Your task to perform on an android device: toggle sleep mode Image 0: 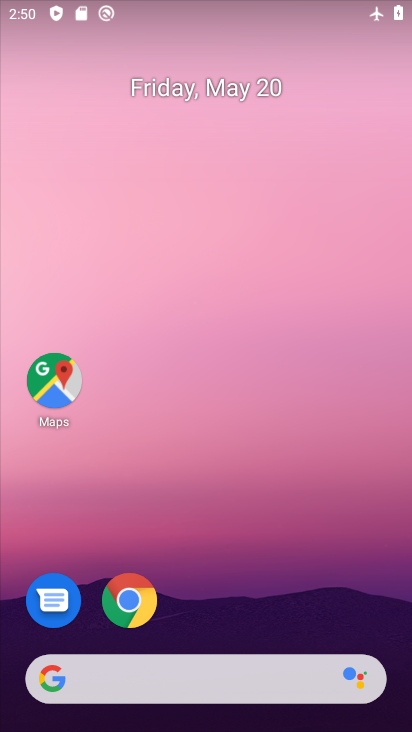
Step 0: click (291, 50)
Your task to perform on an android device: toggle sleep mode Image 1: 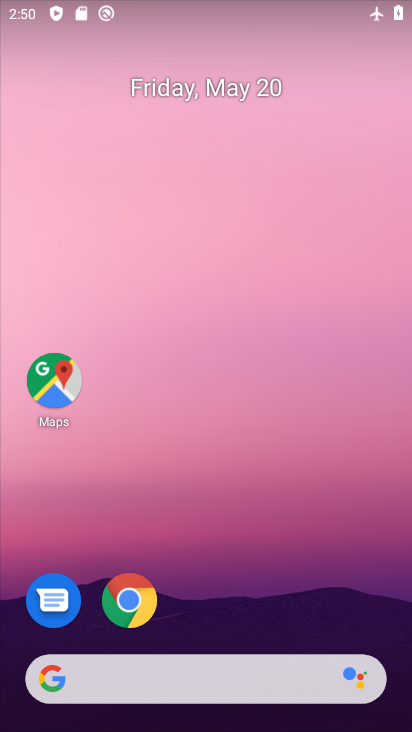
Step 1: drag from (225, 625) to (263, 128)
Your task to perform on an android device: toggle sleep mode Image 2: 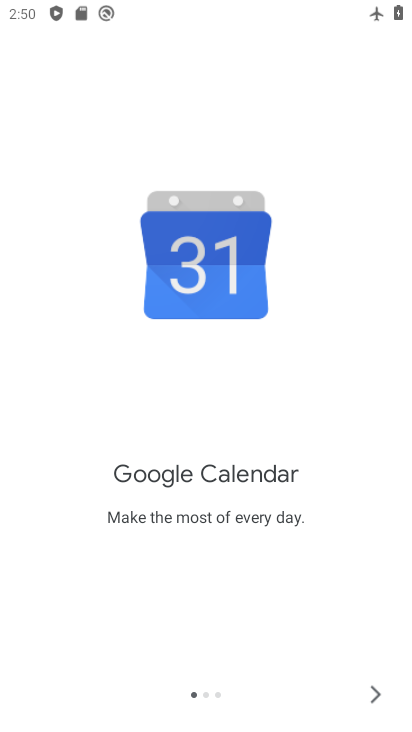
Step 2: drag from (206, 632) to (364, 86)
Your task to perform on an android device: toggle sleep mode Image 3: 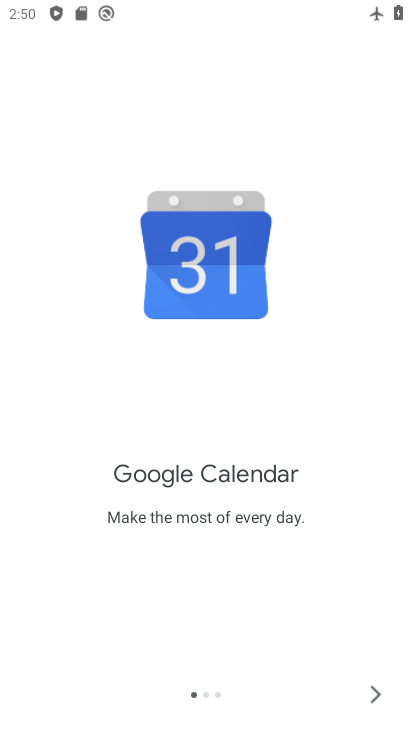
Step 3: press home button
Your task to perform on an android device: toggle sleep mode Image 4: 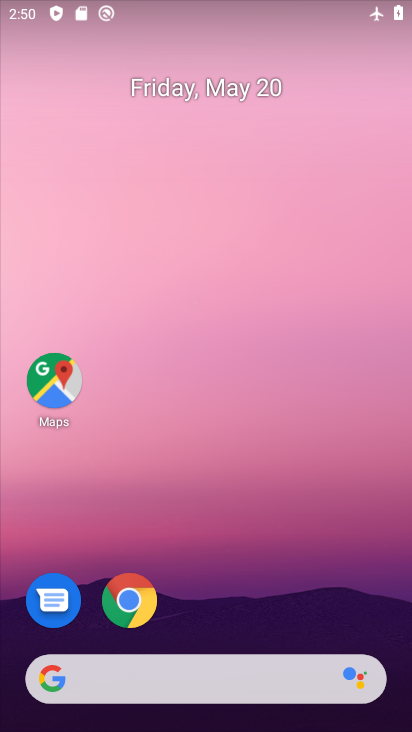
Step 4: drag from (224, 574) to (265, 20)
Your task to perform on an android device: toggle sleep mode Image 5: 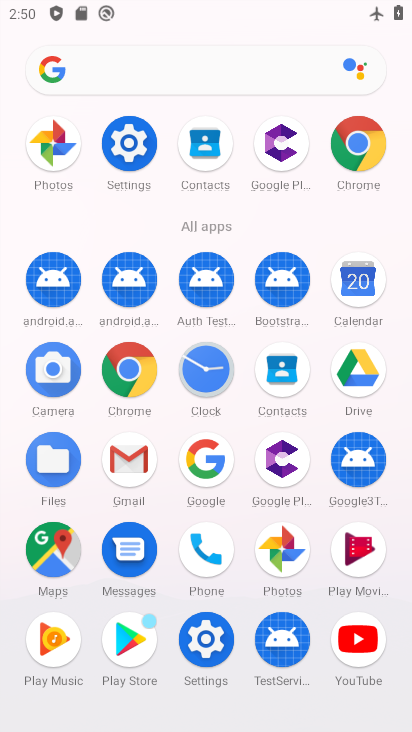
Step 5: click (123, 160)
Your task to perform on an android device: toggle sleep mode Image 6: 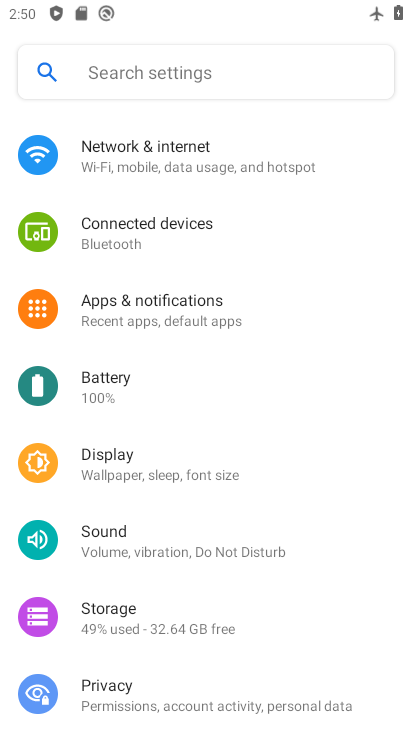
Step 6: click (232, 84)
Your task to perform on an android device: toggle sleep mode Image 7: 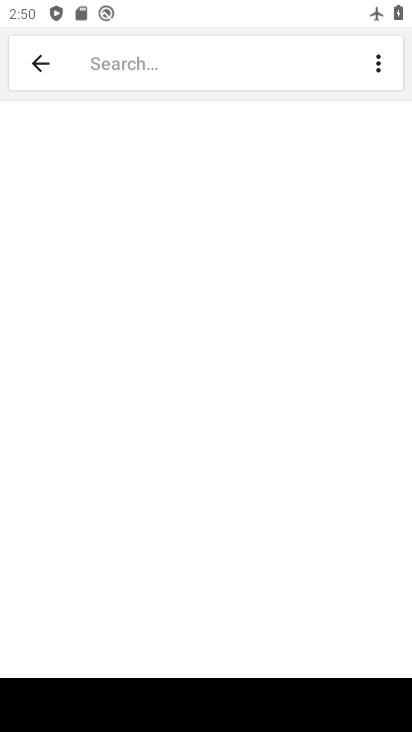
Step 7: type "sleep mode"
Your task to perform on an android device: toggle sleep mode Image 8: 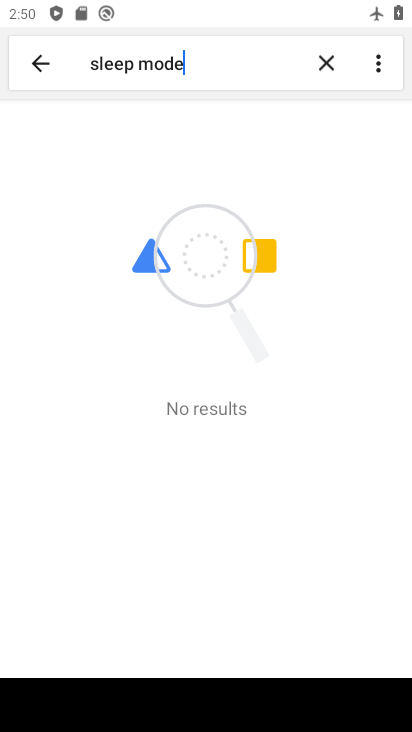
Step 8: click (219, 158)
Your task to perform on an android device: toggle sleep mode Image 9: 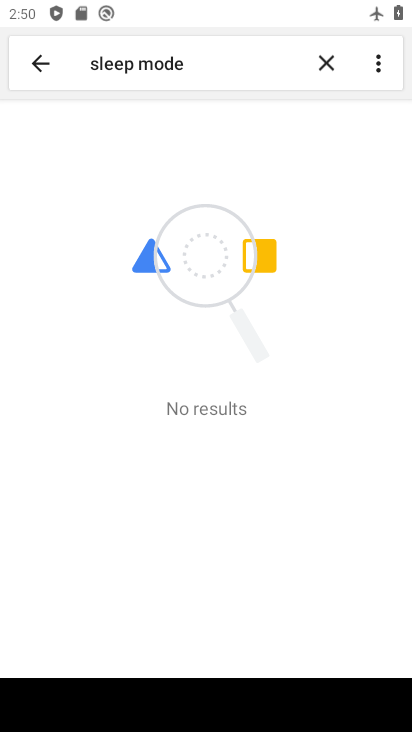
Step 9: task complete